Your task to perform on an android device: Open calendar and show me the third week of next month Image 0: 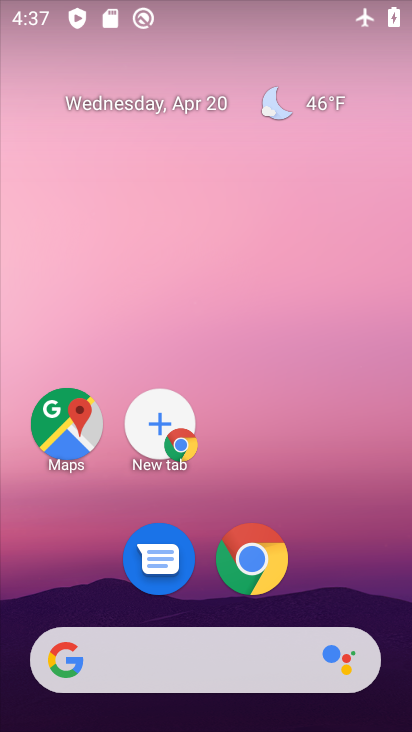
Step 0: drag from (315, 560) to (306, 109)
Your task to perform on an android device: Open calendar and show me the third week of next month Image 1: 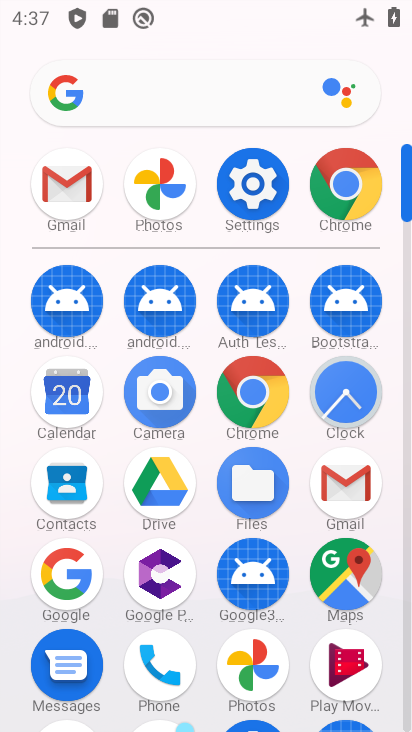
Step 1: click (247, 195)
Your task to perform on an android device: Open calendar and show me the third week of next month Image 2: 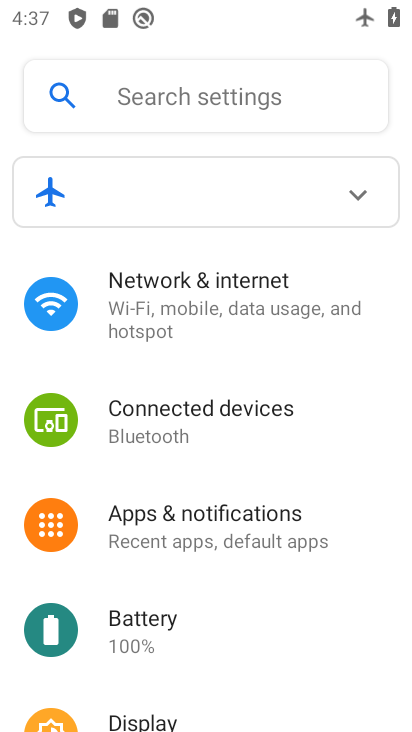
Step 2: press home button
Your task to perform on an android device: Open calendar and show me the third week of next month Image 3: 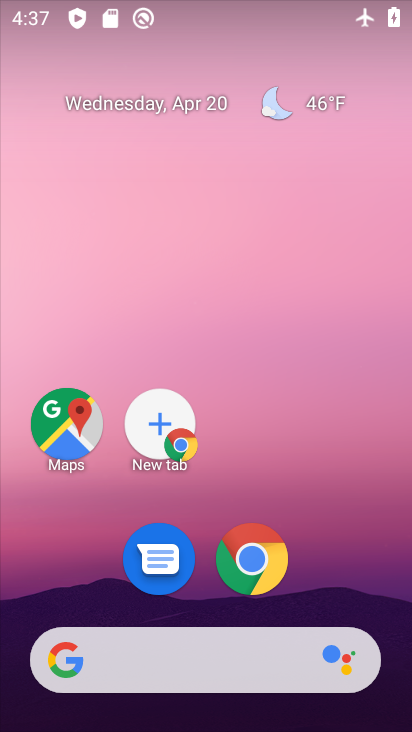
Step 3: drag from (356, 535) to (301, 112)
Your task to perform on an android device: Open calendar and show me the third week of next month Image 4: 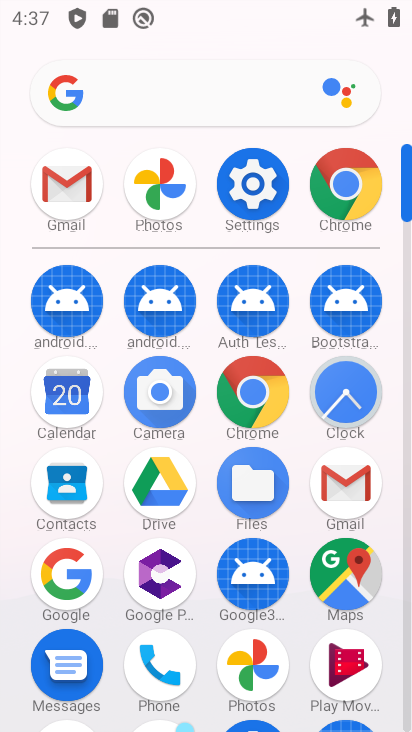
Step 4: click (86, 393)
Your task to perform on an android device: Open calendar and show me the third week of next month Image 5: 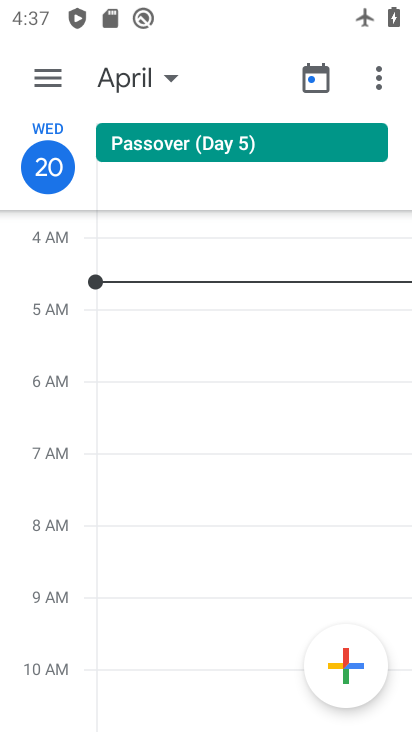
Step 5: click (139, 77)
Your task to perform on an android device: Open calendar and show me the third week of next month Image 6: 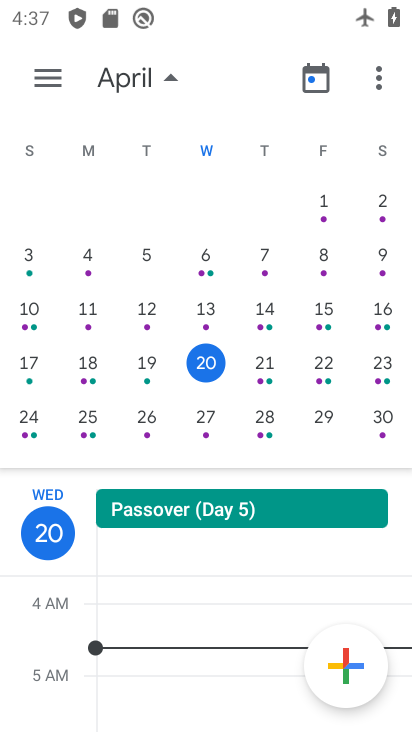
Step 6: drag from (394, 338) to (8, 340)
Your task to perform on an android device: Open calendar and show me the third week of next month Image 7: 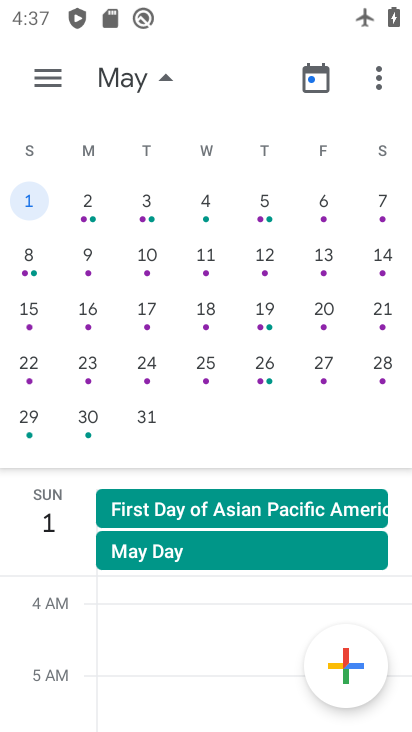
Step 7: click (155, 325)
Your task to perform on an android device: Open calendar and show me the third week of next month Image 8: 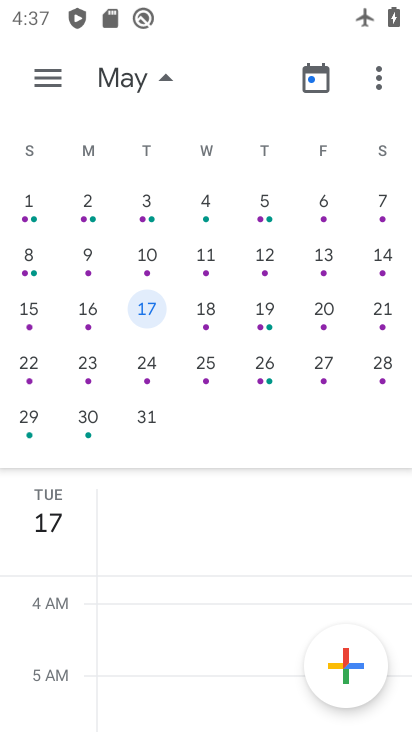
Step 8: task complete